Your task to perform on an android device: toggle notification dots Image 0: 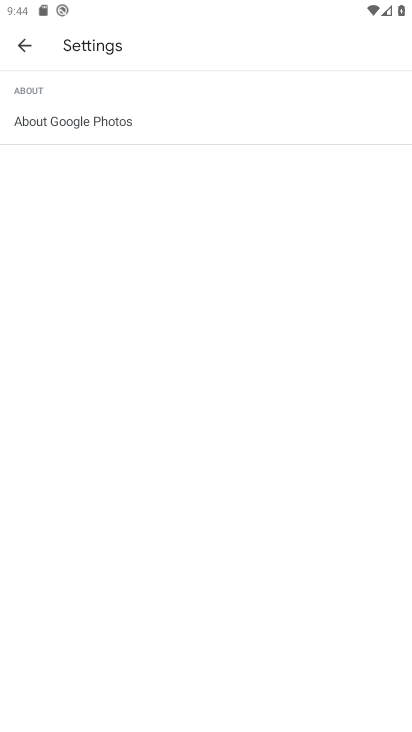
Step 0: press home button
Your task to perform on an android device: toggle notification dots Image 1: 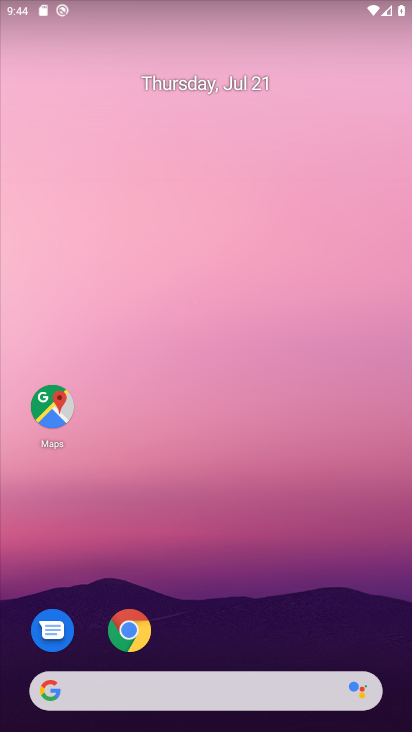
Step 1: drag from (271, 605) to (362, 103)
Your task to perform on an android device: toggle notification dots Image 2: 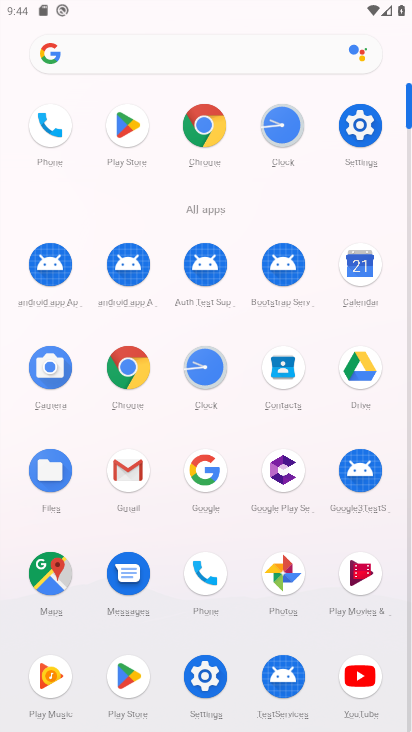
Step 2: click (354, 117)
Your task to perform on an android device: toggle notification dots Image 3: 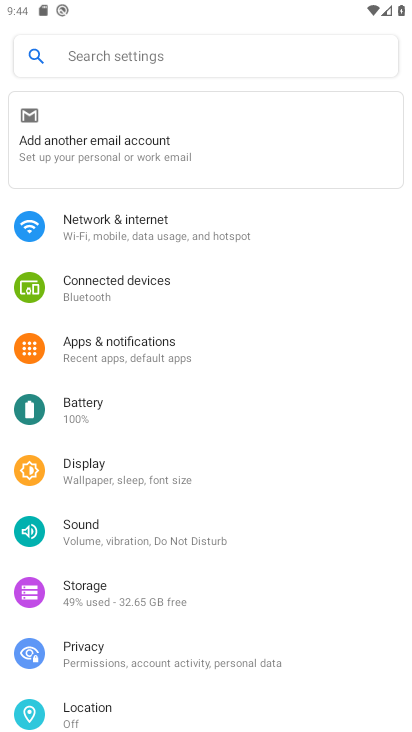
Step 3: click (193, 355)
Your task to perform on an android device: toggle notification dots Image 4: 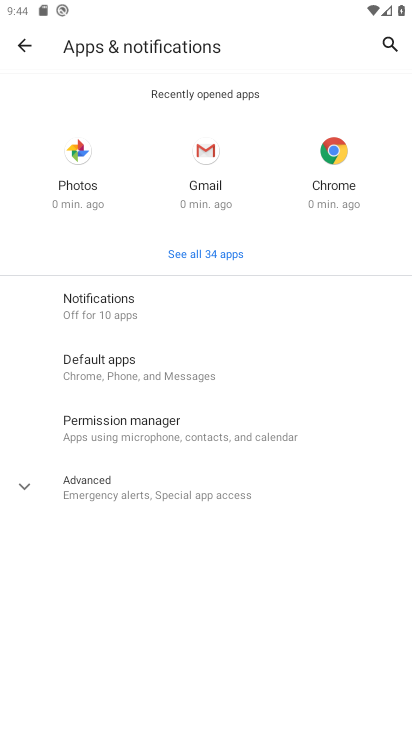
Step 4: click (158, 317)
Your task to perform on an android device: toggle notification dots Image 5: 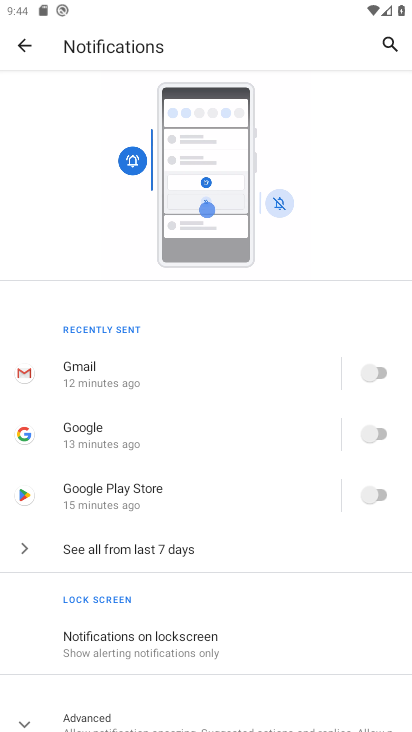
Step 5: drag from (234, 687) to (175, 154)
Your task to perform on an android device: toggle notification dots Image 6: 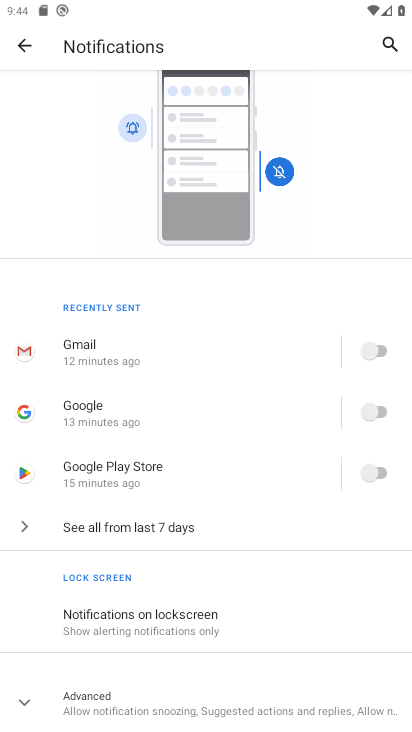
Step 6: click (274, 683)
Your task to perform on an android device: toggle notification dots Image 7: 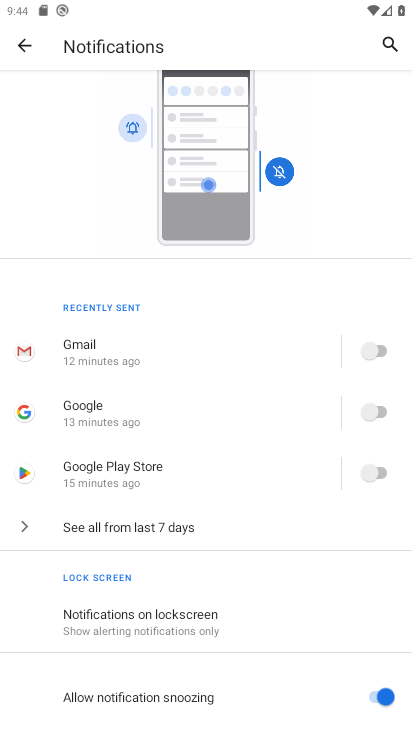
Step 7: drag from (247, 604) to (197, 15)
Your task to perform on an android device: toggle notification dots Image 8: 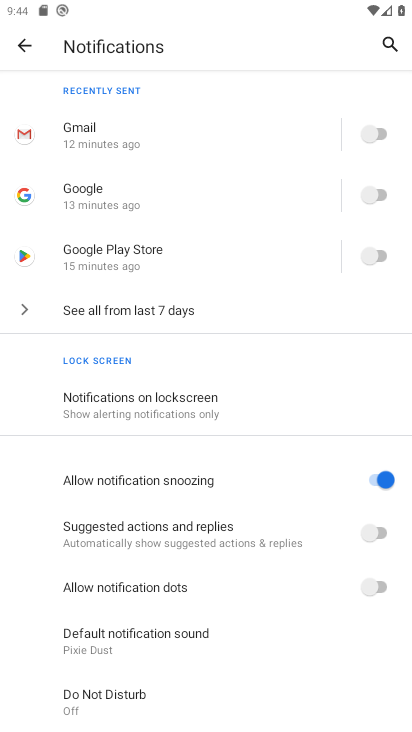
Step 8: click (375, 583)
Your task to perform on an android device: toggle notification dots Image 9: 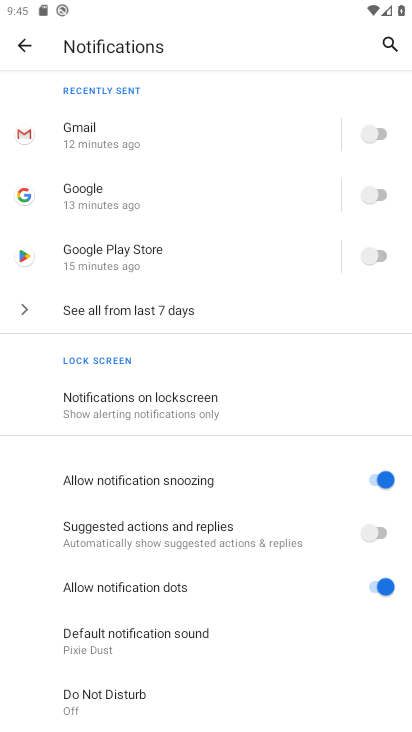
Step 9: task complete